Your task to perform on an android device: Search for seafood restaurants on Google Maps Image 0: 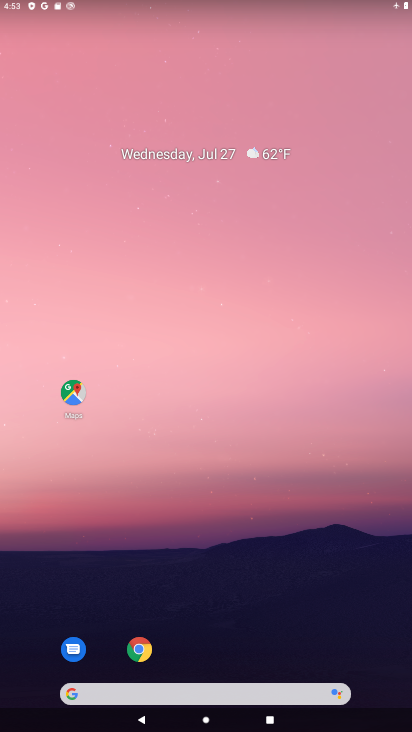
Step 0: click (69, 401)
Your task to perform on an android device: Search for seafood restaurants on Google Maps Image 1: 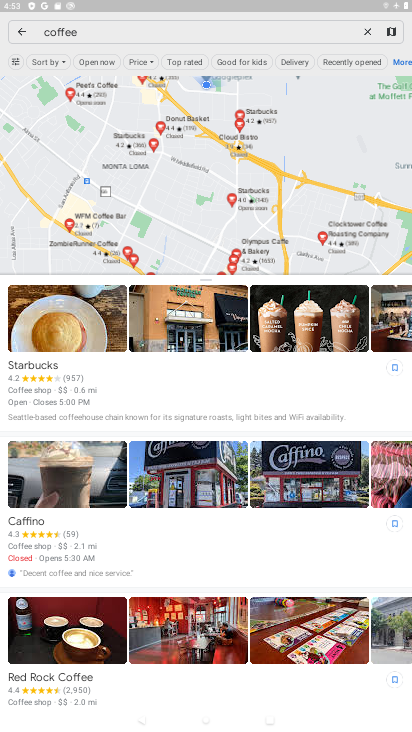
Step 1: click (364, 28)
Your task to perform on an android device: Search for seafood restaurants on Google Maps Image 2: 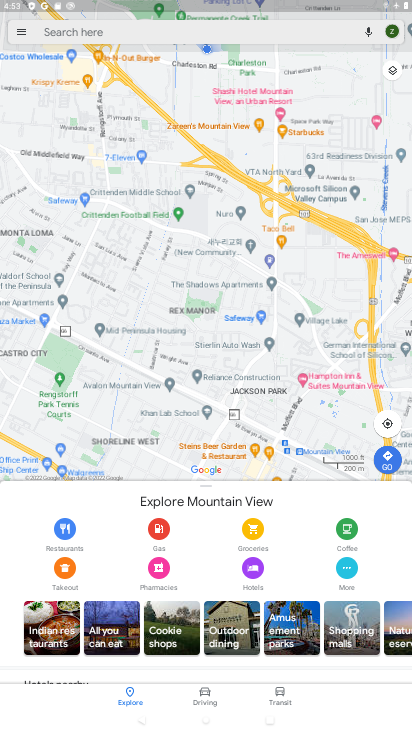
Step 2: click (200, 33)
Your task to perform on an android device: Search for seafood restaurants on Google Maps Image 3: 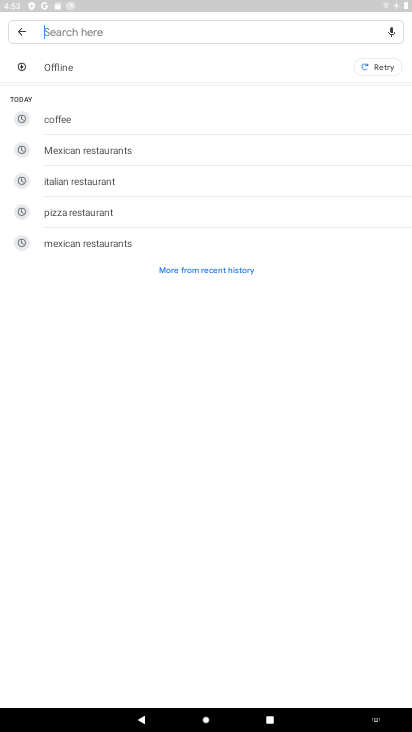
Step 3: type " seafood restaurants "
Your task to perform on an android device: Search for seafood restaurants on Google Maps Image 4: 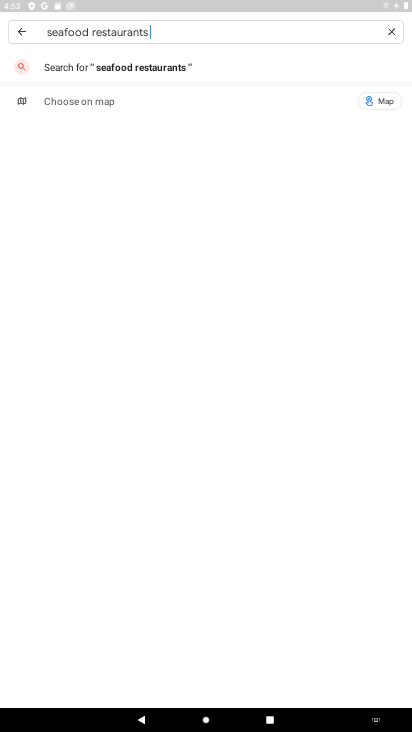
Step 4: press enter
Your task to perform on an android device: Search for seafood restaurants on Google Maps Image 5: 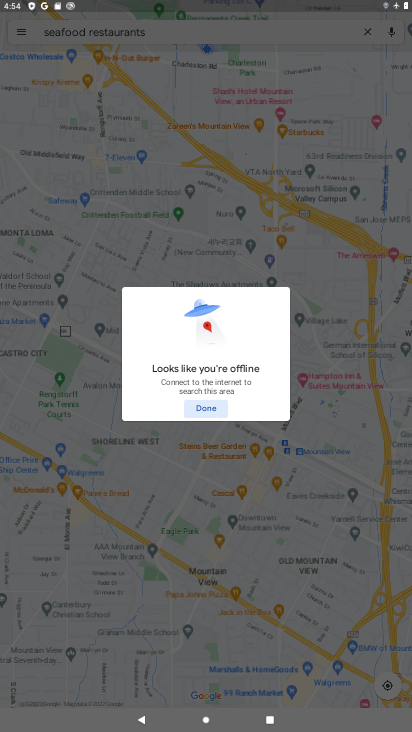
Step 5: click (204, 412)
Your task to perform on an android device: Search for seafood restaurants on Google Maps Image 6: 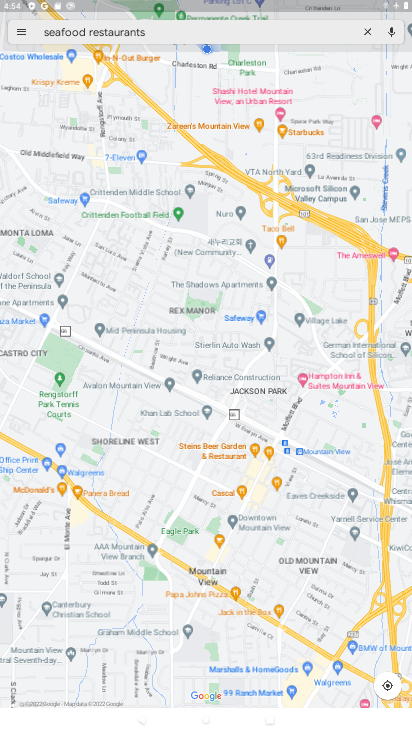
Step 6: task complete